Your task to perform on an android device: turn off location history Image 0: 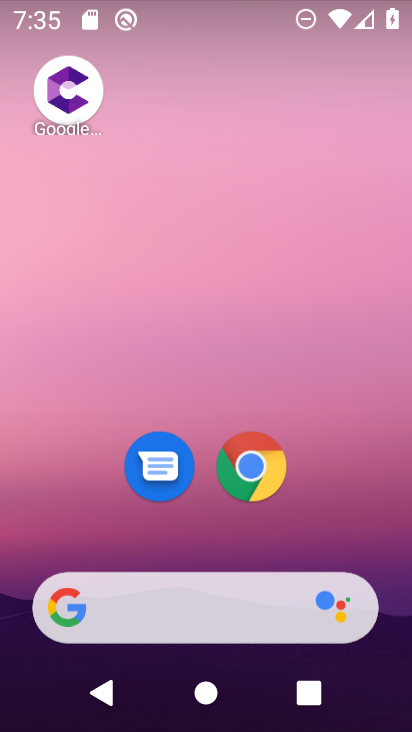
Step 0: drag from (165, 731) to (53, 0)
Your task to perform on an android device: turn off location history Image 1: 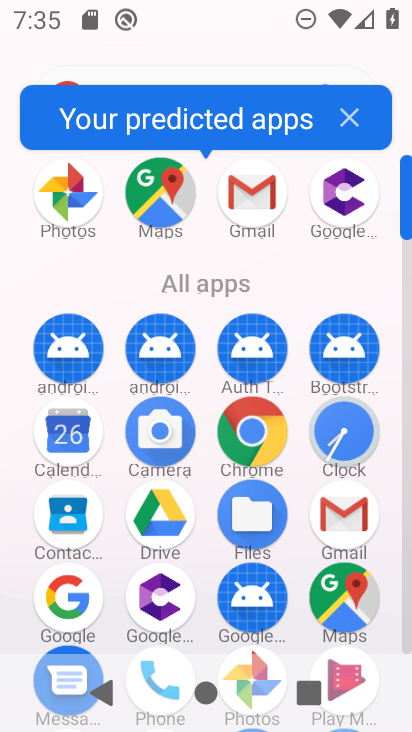
Step 1: drag from (108, 517) to (108, 211)
Your task to perform on an android device: turn off location history Image 2: 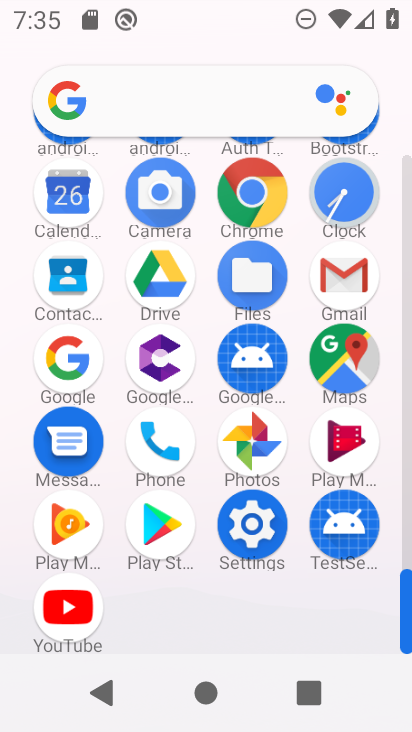
Step 2: click (261, 544)
Your task to perform on an android device: turn off location history Image 3: 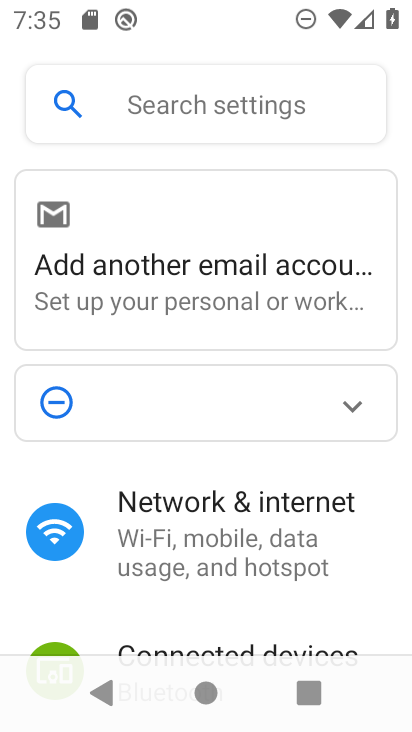
Step 3: drag from (80, 538) to (84, 132)
Your task to perform on an android device: turn off location history Image 4: 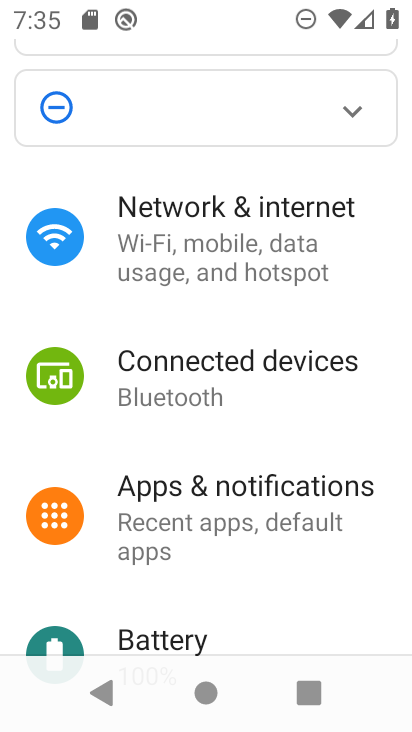
Step 4: drag from (112, 584) to (104, 146)
Your task to perform on an android device: turn off location history Image 5: 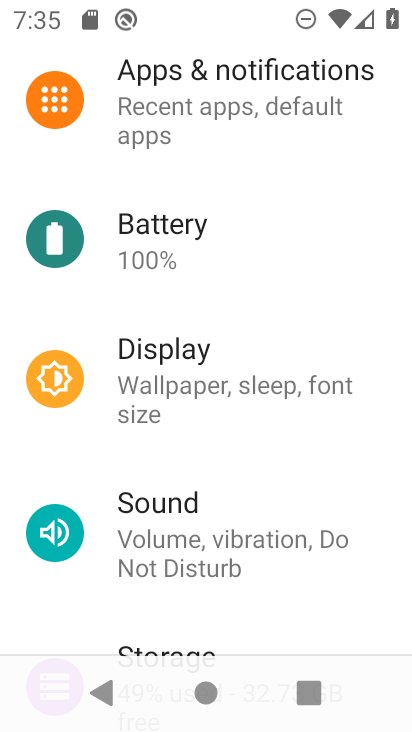
Step 5: drag from (96, 588) to (132, 211)
Your task to perform on an android device: turn off location history Image 6: 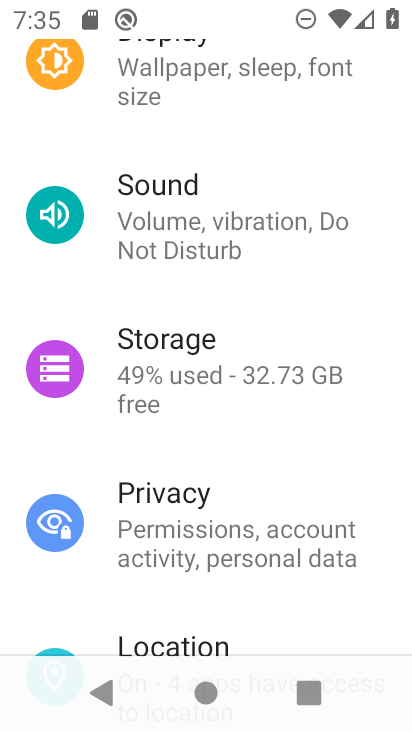
Step 6: drag from (113, 621) to (122, 334)
Your task to perform on an android device: turn off location history Image 7: 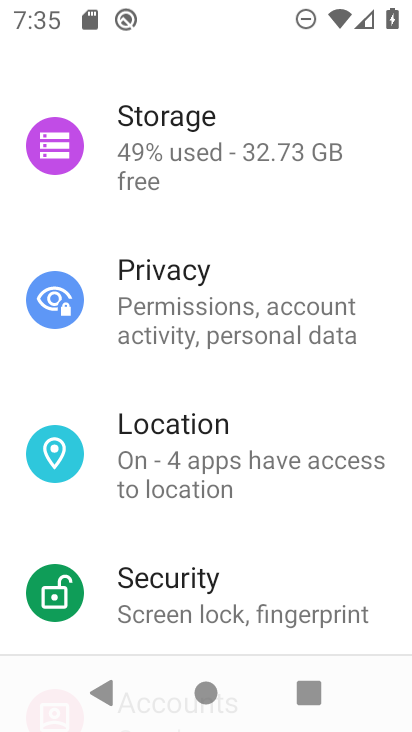
Step 7: click (195, 465)
Your task to perform on an android device: turn off location history Image 8: 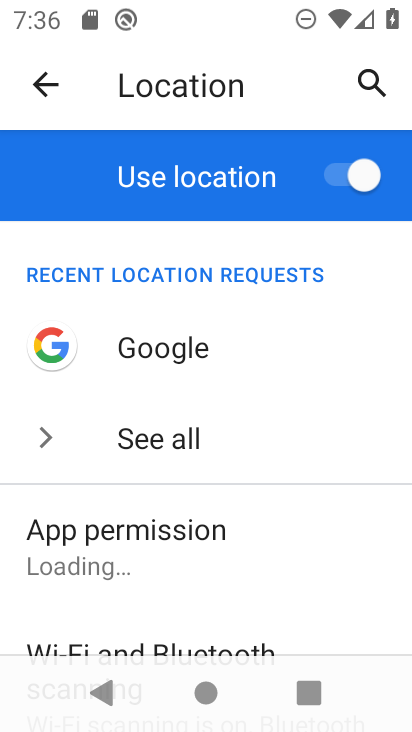
Step 8: drag from (202, 579) to (172, 232)
Your task to perform on an android device: turn off location history Image 9: 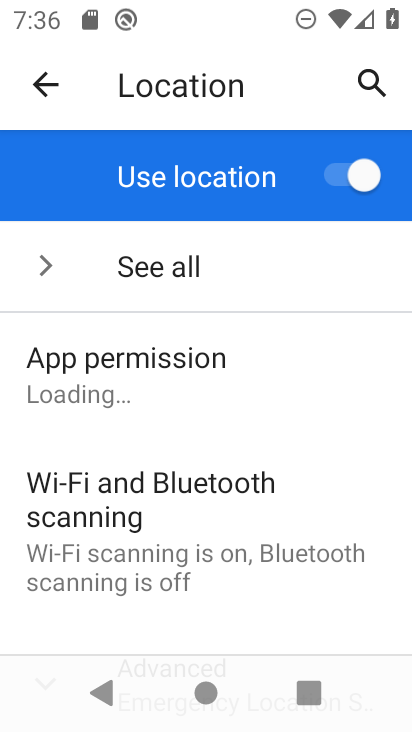
Step 9: drag from (185, 577) to (188, 229)
Your task to perform on an android device: turn off location history Image 10: 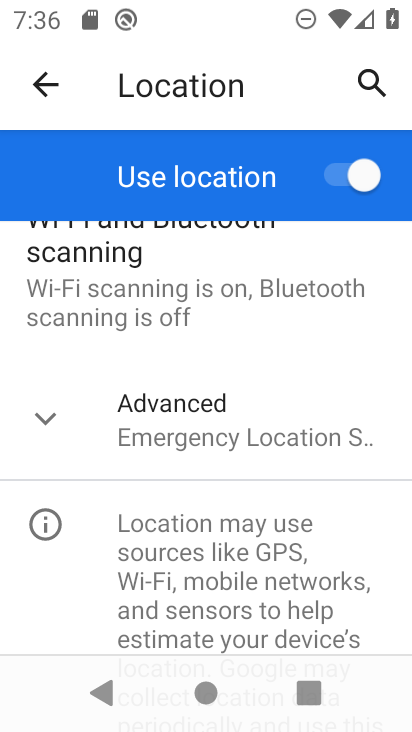
Step 10: click (188, 424)
Your task to perform on an android device: turn off location history Image 11: 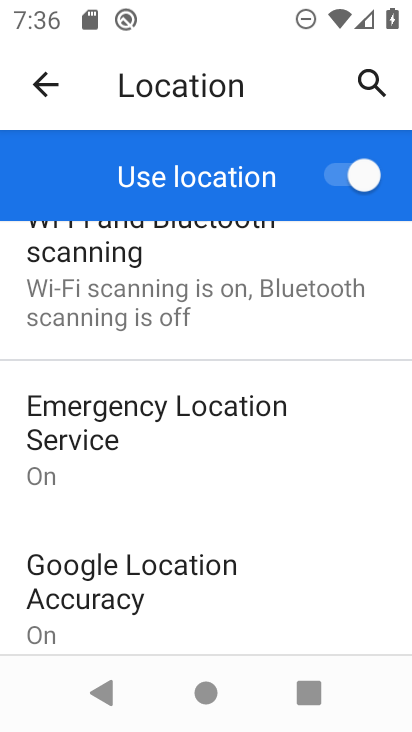
Step 11: drag from (219, 568) to (250, 355)
Your task to perform on an android device: turn off location history Image 12: 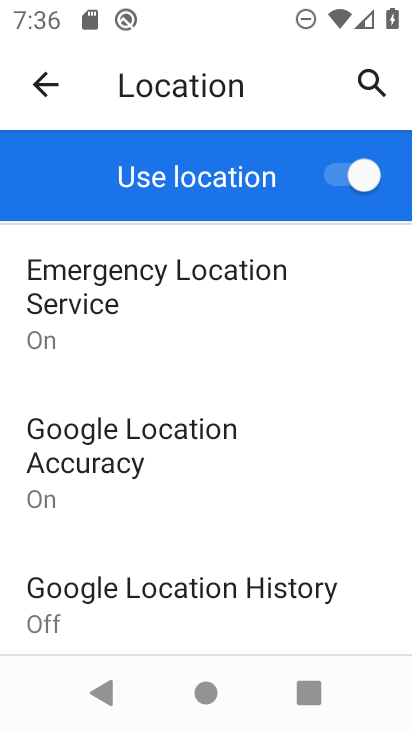
Step 12: click (239, 588)
Your task to perform on an android device: turn off location history Image 13: 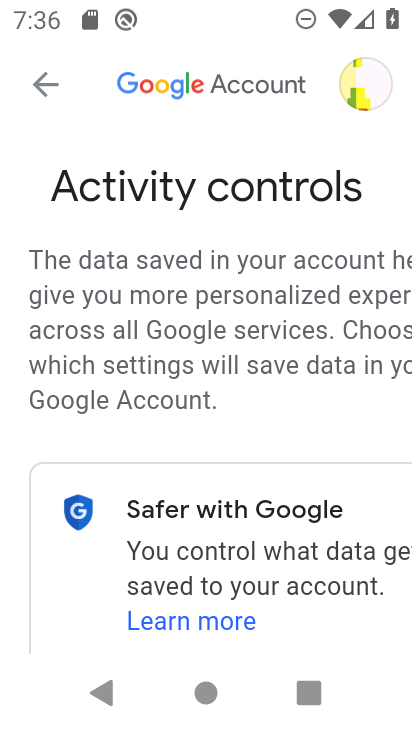
Step 13: task complete